Your task to perform on an android device: turn on priority inbox in the gmail app Image 0: 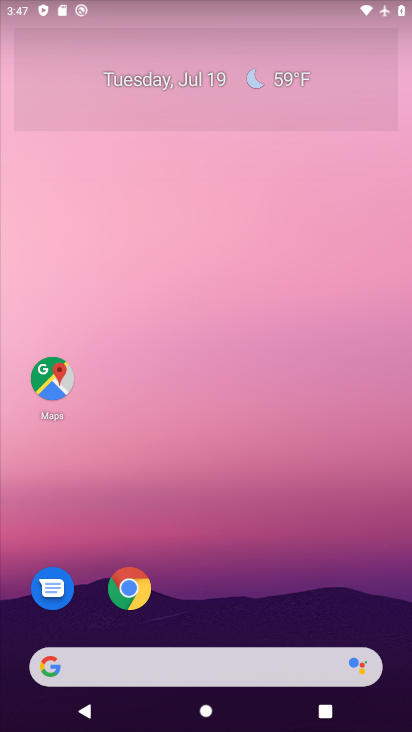
Step 0: press home button
Your task to perform on an android device: turn on priority inbox in the gmail app Image 1: 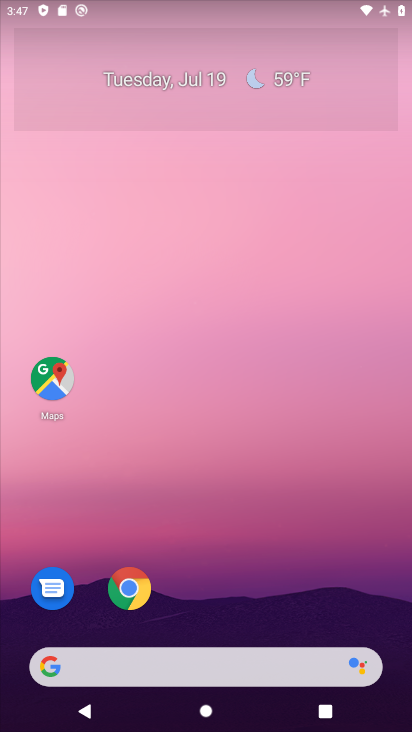
Step 1: drag from (306, 615) to (329, 147)
Your task to perform on an android device: turn on priority inbox in the gmail app Image 2: 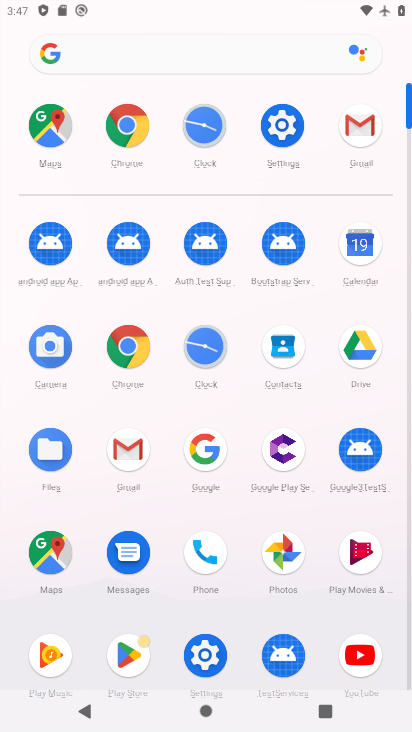
Step 2: click (358, 137)
Your task to perform on an android device: turn on priority inbox in the gmail app Image 3: 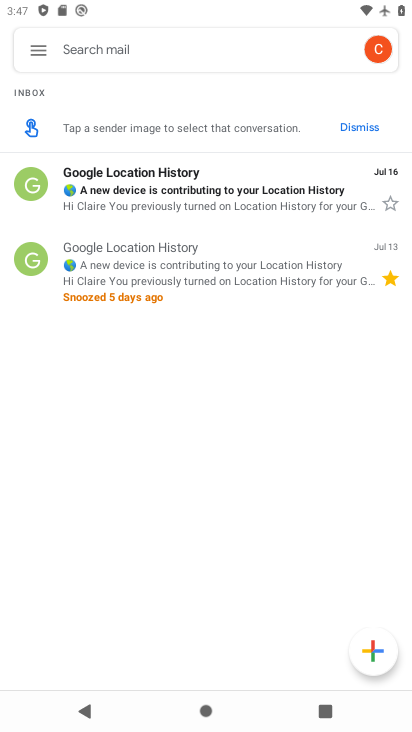
Step 3: click (41, 51)
Your task to perform on an android device: turn on priority inbox in the gmail app Image 4: 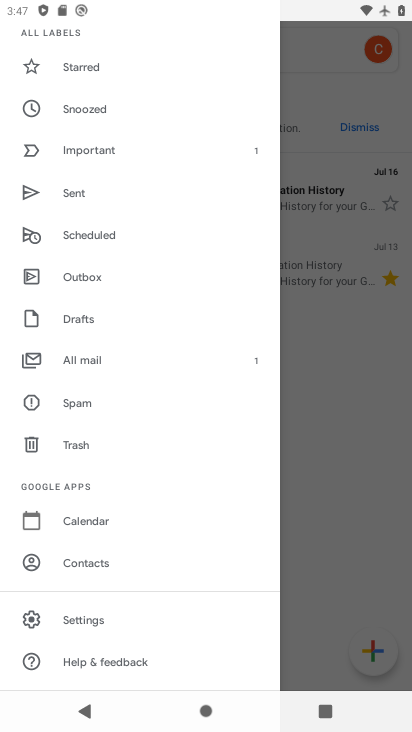
Step 4: click (95, 623)
Your task to perform on an android device: turn on priority inbox in the gmail app Image 5: 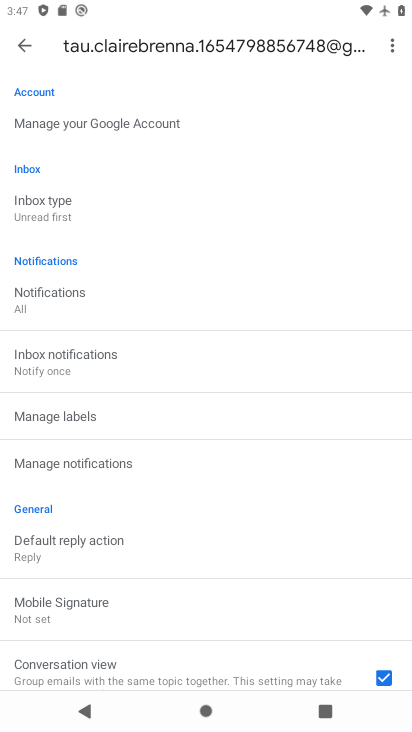
Step 5: click (49, 208)
Your task to perform on an android device: turn on priority inbox in the gmail app Image 6: 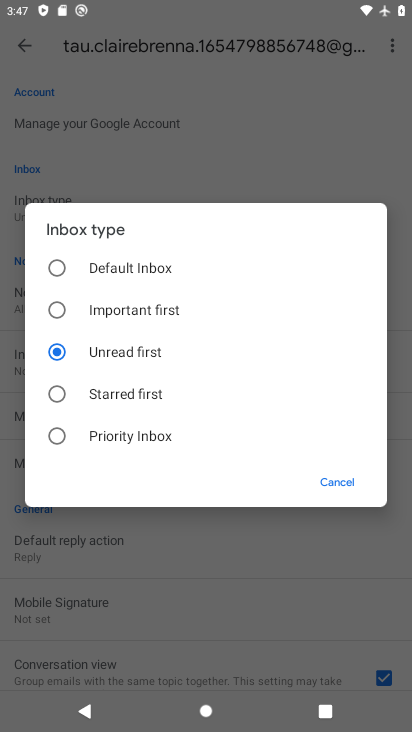
Step 6: click (58, 444)
Your task to perform on an android device: turn on priority inbox in the gmail app Image 7: 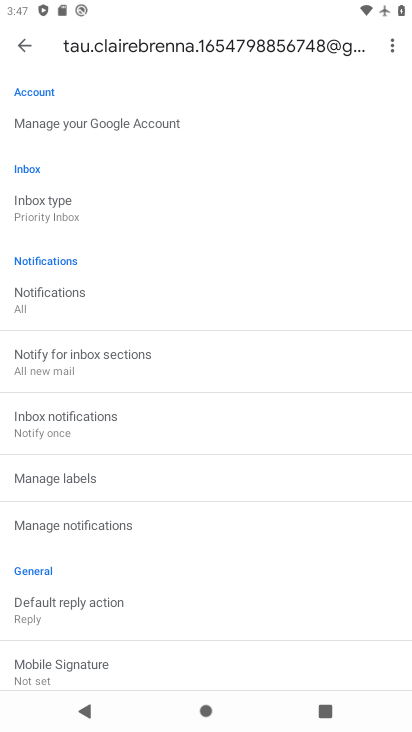
Step 7: task complete